Your task to perform on an android device: search for starred emails in the gmail app Image 0: 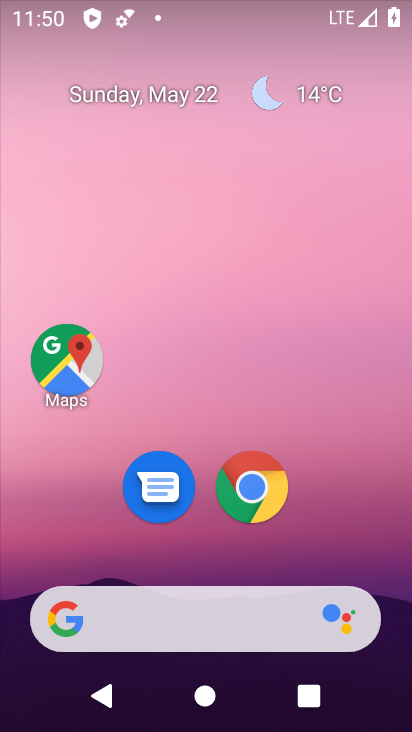
Step 0: drag from (344, 530) to (306, 31)
Your task to perform on an android device: search for starred emails in the gmail app Image 1: 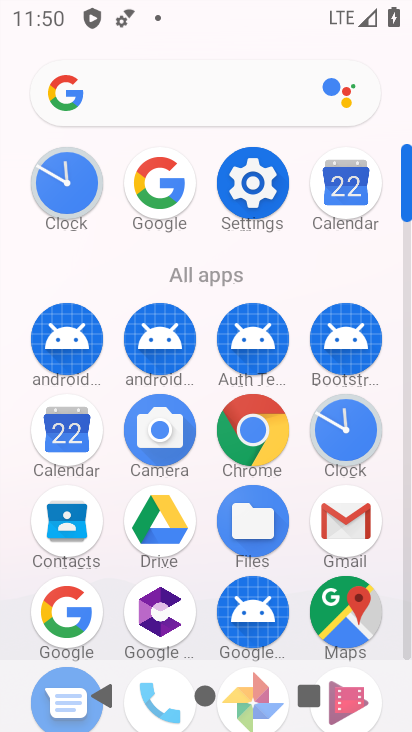
Step 1: click (351, 531)
Your task to perform on an android device: search for starred emails in the gmail app Image 2: 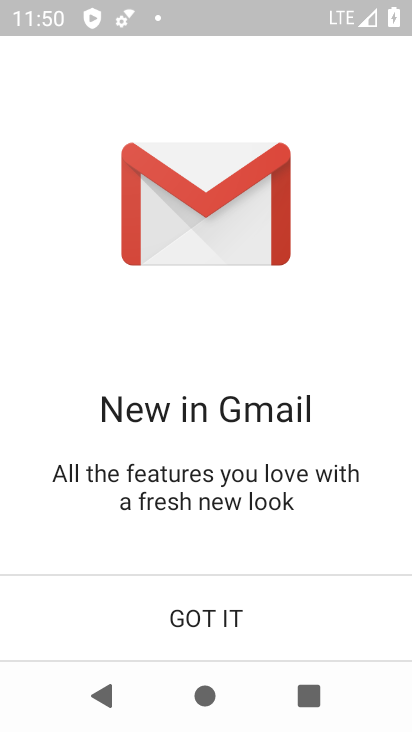
Step 2: click (220, 602)
Your task to perform on an android device: search for starred emails in the gmail app Image 3: 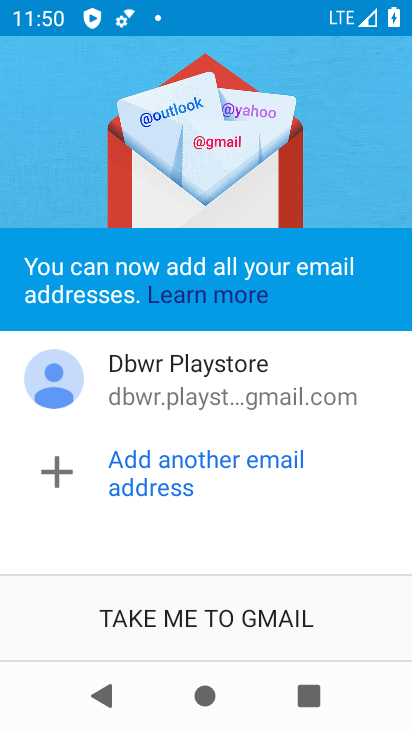
Step 3: click (220, 600)
Your task to perform on an android device: search for starred emails in the gmail app Image 4: 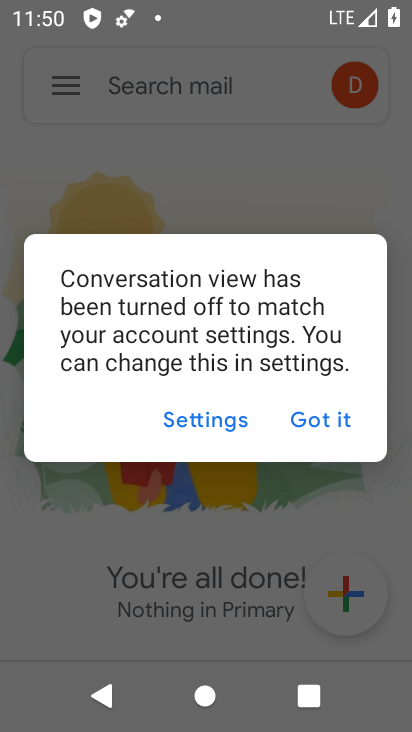
Step 4: click (337, 419)
Your task to perform on an android device: search for starred emails in the gmail app Image 5: 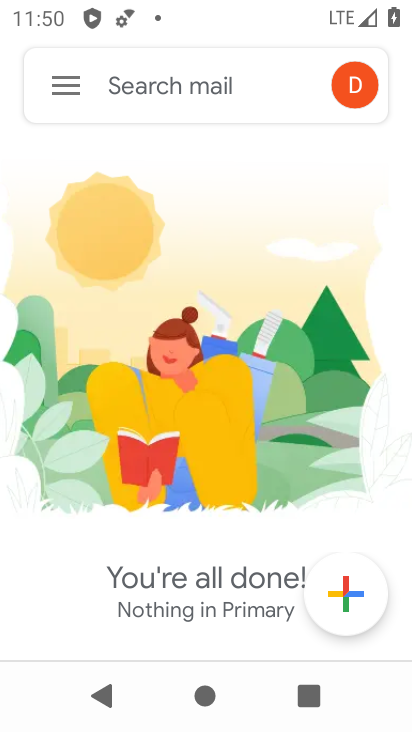
Step 5: click (59, 78)
Your task to perform on an android device: search for starred emails in the gmail app Image 6: 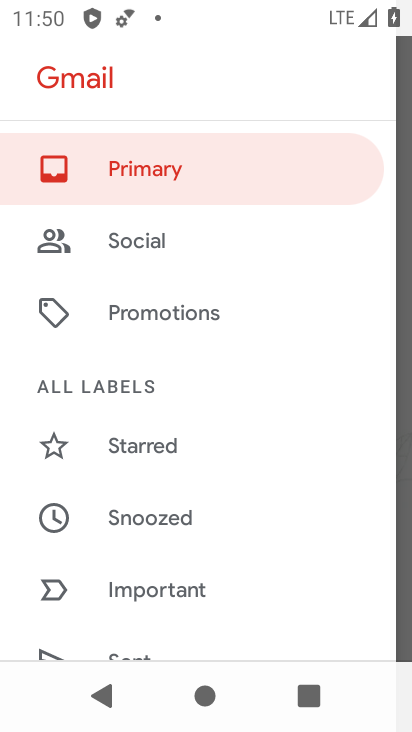
Step 6: drag from (166, 568) to (230, 110)
Your task to perform on an android device: search for starred emails in the gmail app Image 7: 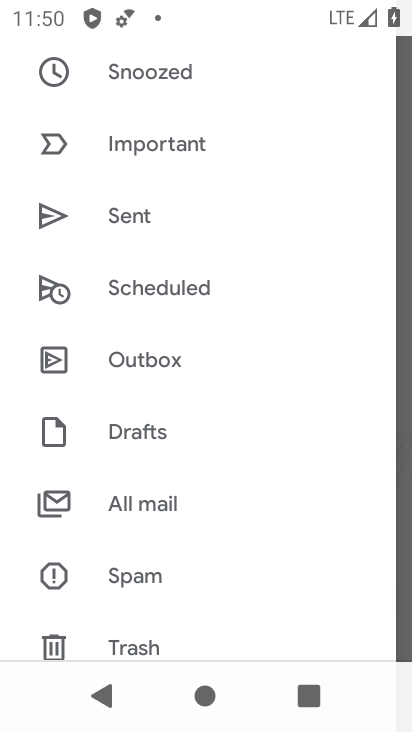
Step 7: click (167, 520)
Your task to perform on an android device: search for starred emails in the gmail app Image 8: 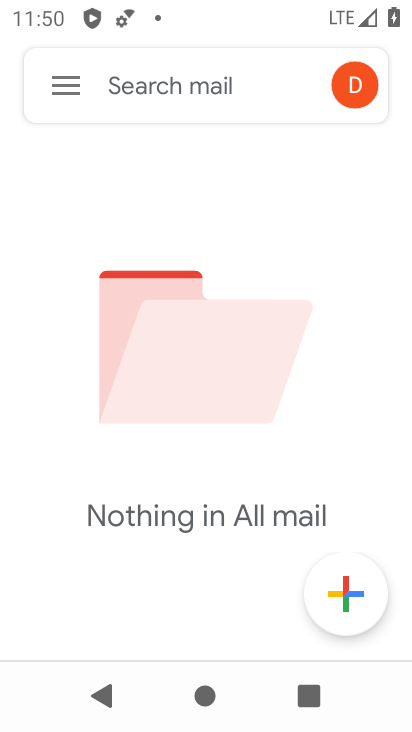
Step 8: task complete